Your task to perform on an android device: Open calendar and show me the third week of next month Image 0: 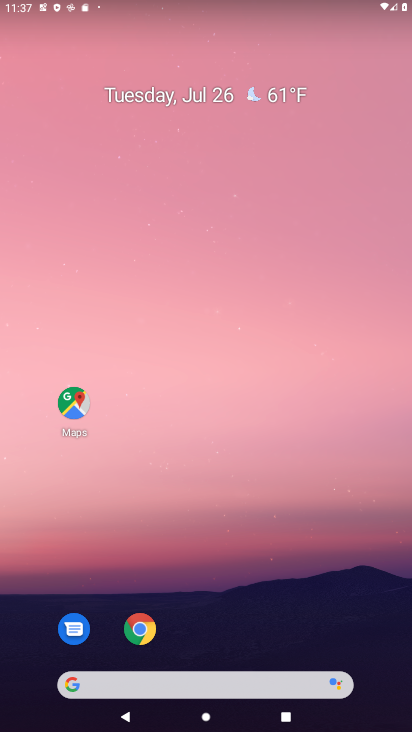
Step 0: drag from (317, 622) to (318, 195)
Your task to perform on an android device: Open calendar and show me the third week of next month Image 1: 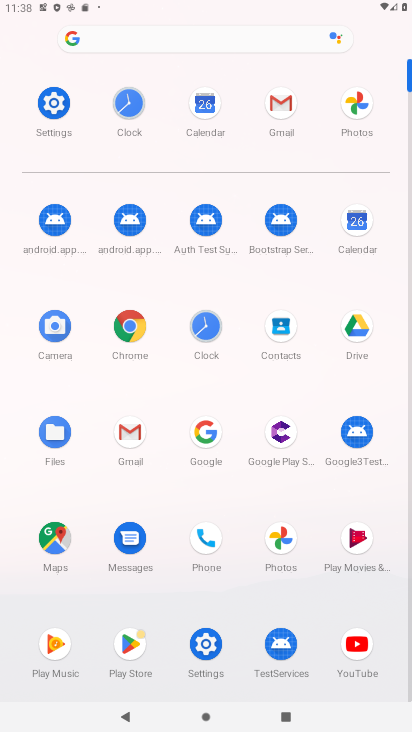
Step 1: click (205, 122)
Your task to perform on an android device: Open calendar and show me the third week of next month Image 2: 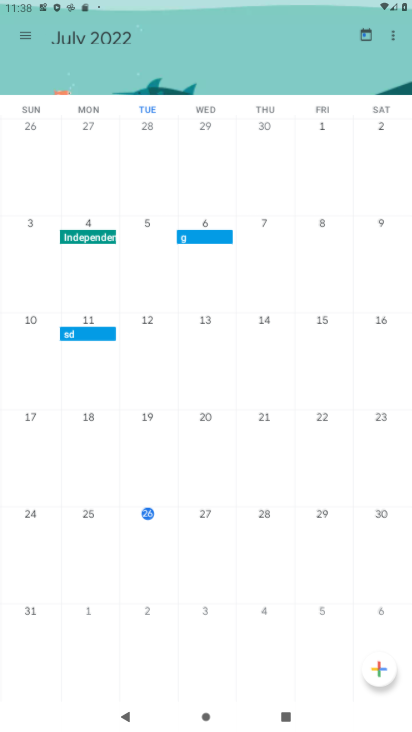
Step 2: task complete